Your task to perform on an android device: change notification settings in the gmail app Image 0: 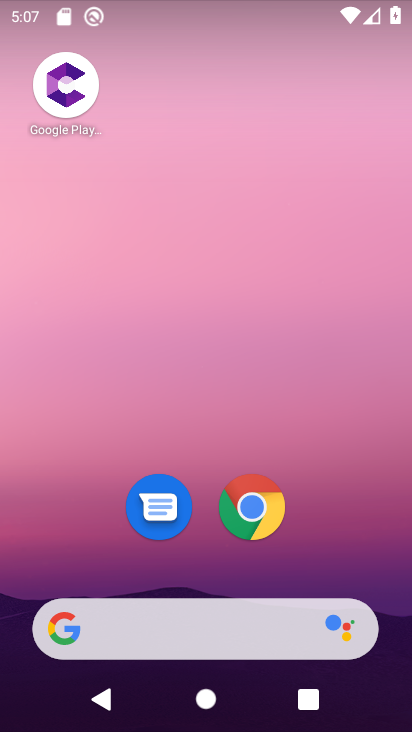
Step 0: drag from (347, 595) to (368, 99)
Your task to perform on an android device: change notification settings in the gmail app Image 1: 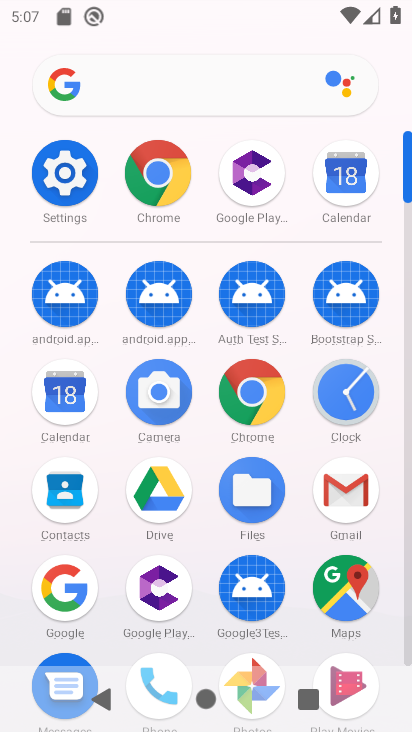
Step 1: click (340, 475)
Your task to perform on an android device: change notification settings in the gmail app Image 2: 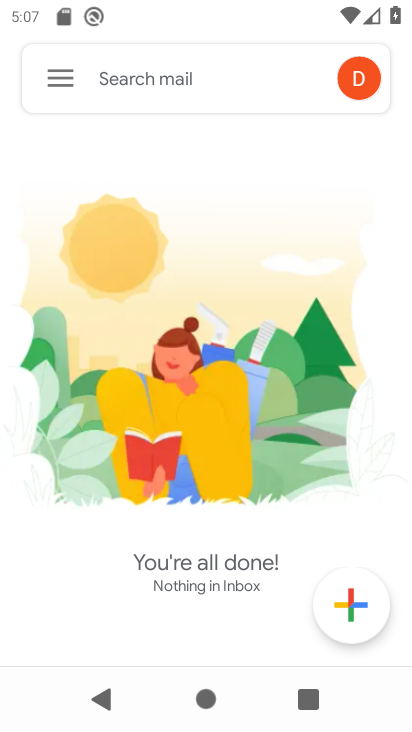
Step 2: click (66, 80)
Your task to perform on an android device: change notification settings in the gmail app Image 3: 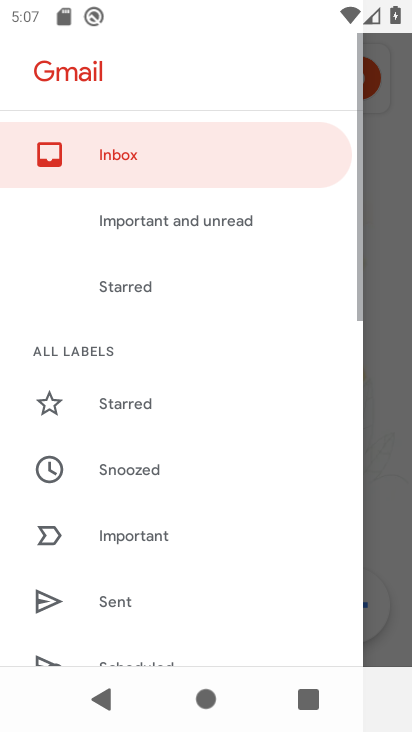
Step 3: drag from (199, 593) to (184, 150)
Your task to perform on an android device: change notification settings in the gmail app Image 4: 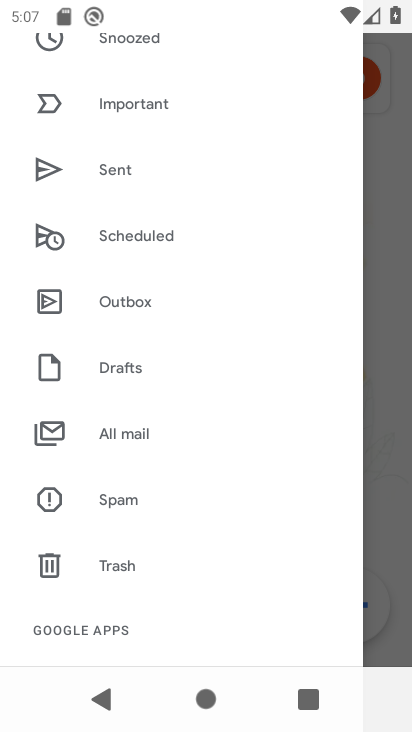
Step 4: drag from (150, 589) to (134, 160)
Your task to perform on an android device: change notification settings in the gmail app Image 5: 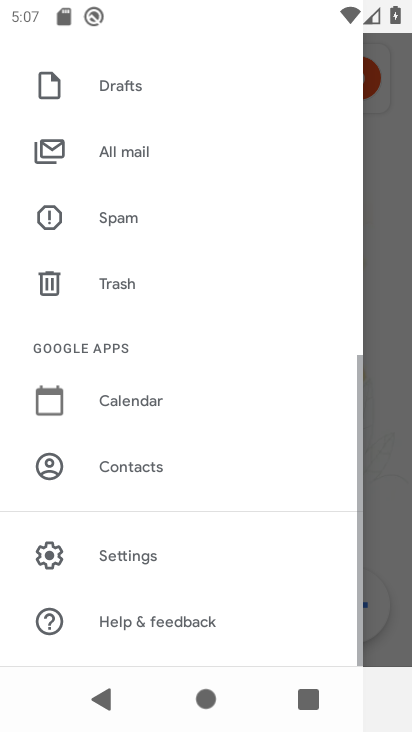
Step 5: click (144, 565)
Your task to perform on an android device: change notification settings in the gmail app Image 6: 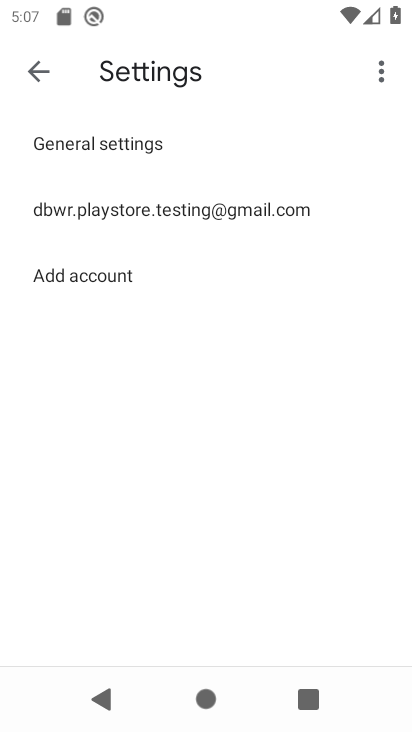
Step 6: click (129, 210)
Your task to perform on an android device: change notification settings in the gmail app Image 7: 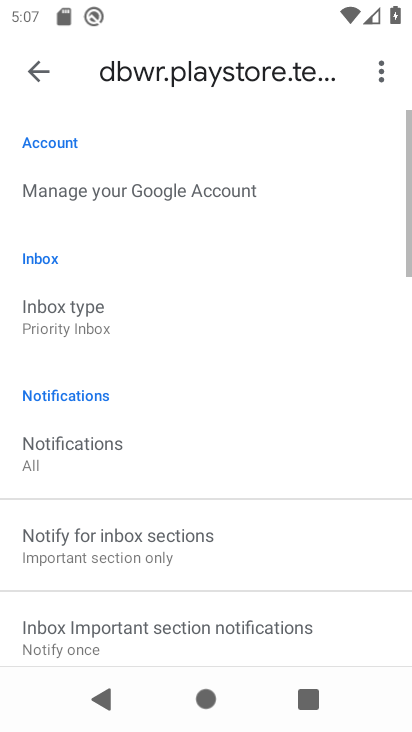
Step 7: drag from (168, 607) to (178, 300)
Your task to perform on an android device: change notification settings in the gmail app Image 8: 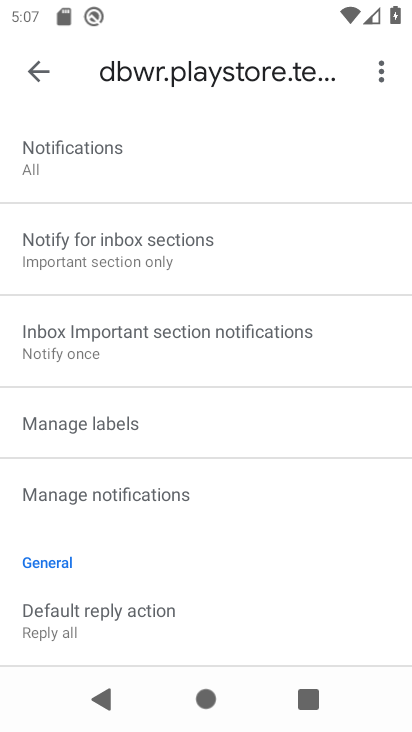
Step 8: click (152, 474)
Your task to perform on an android device: change notification settings in the gmail app Image 9: 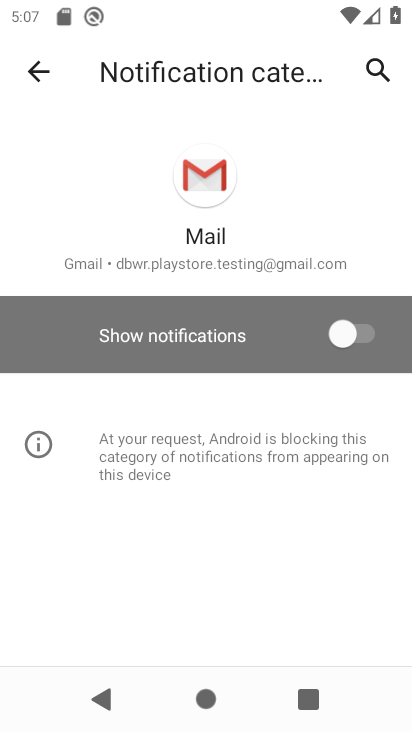
Step 9: click (359, 338)
Your task to perform on an android device: change notification settings in the gmail app Image 10: 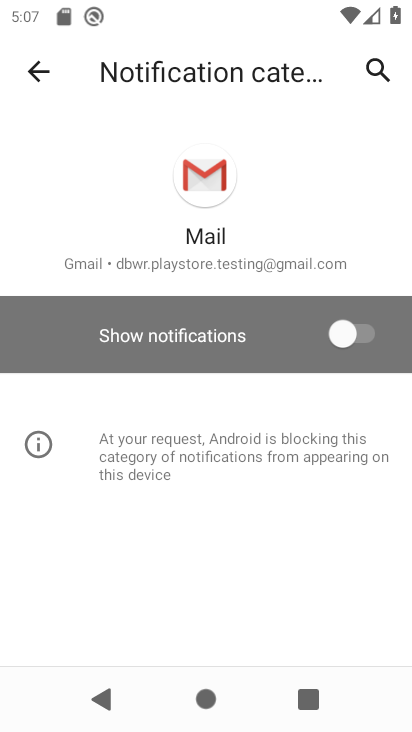
Step 10: click (351, 339)
Your task to perform on an android device: change notification settings in the gmail app Image 11: 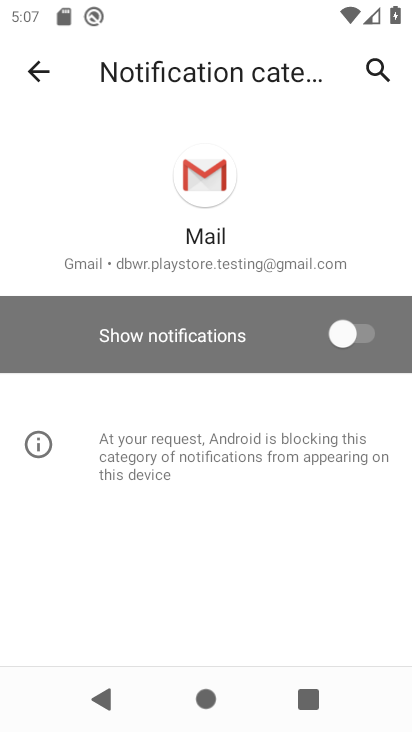
Step 11: click (373, 337)
Your task to perform on an android device: change notification settings in the gmail app Image 12: 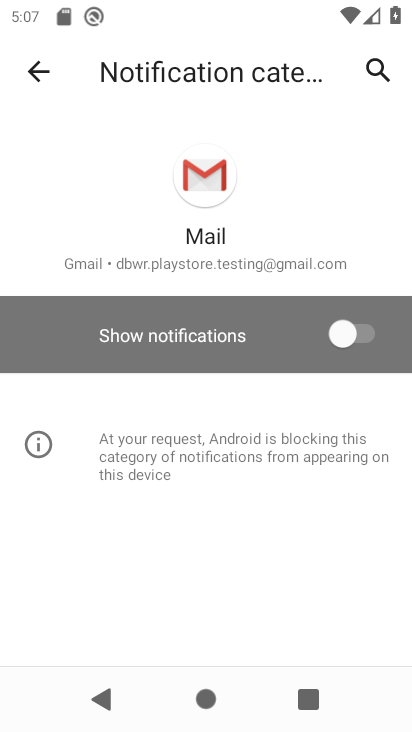
Step 12: task complete